Your task to perform on an android device: change notifications settings Image 0: 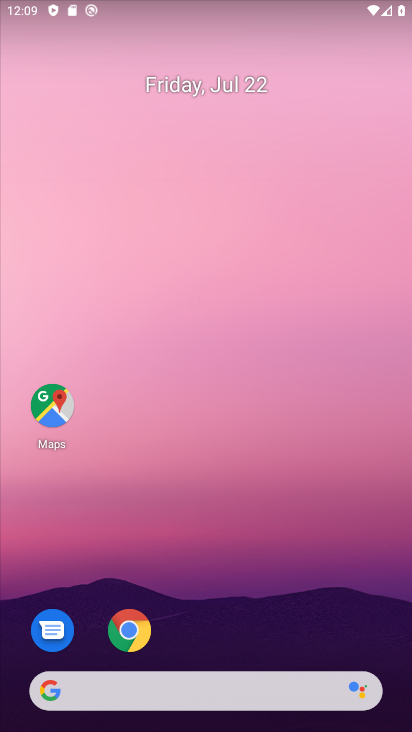
Step 0: drag from (240, 514) to (310, 74)
Your task to perform on an android device: change notifications settings Image 1: 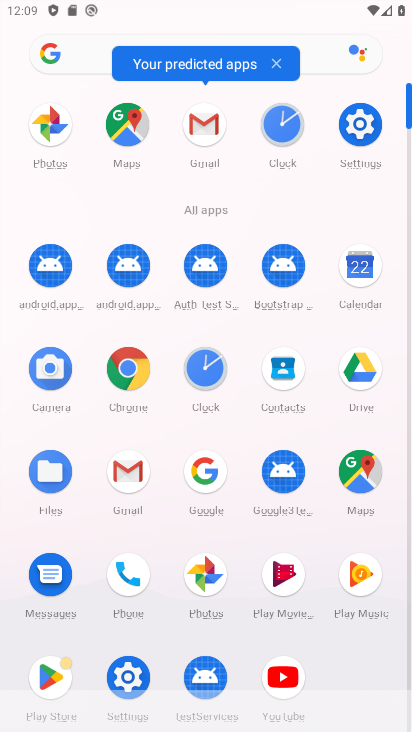
Step 1: click (353, 128)
Your task to perform on an android device: change notifications settings Image 2: 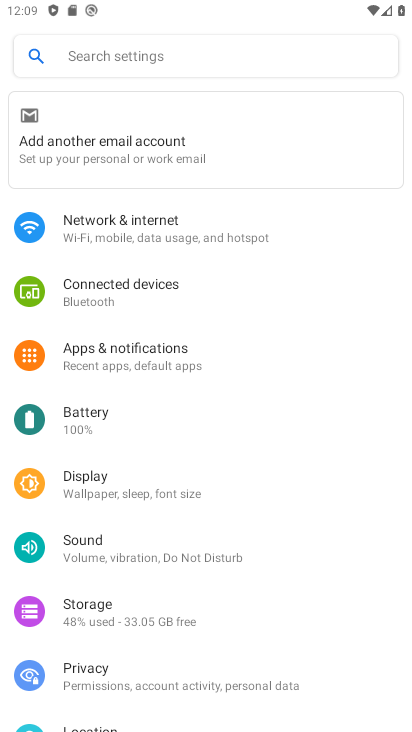
Step 2: click (106, 352)
Your task to perform on an android device: change notifications settings Image 3: 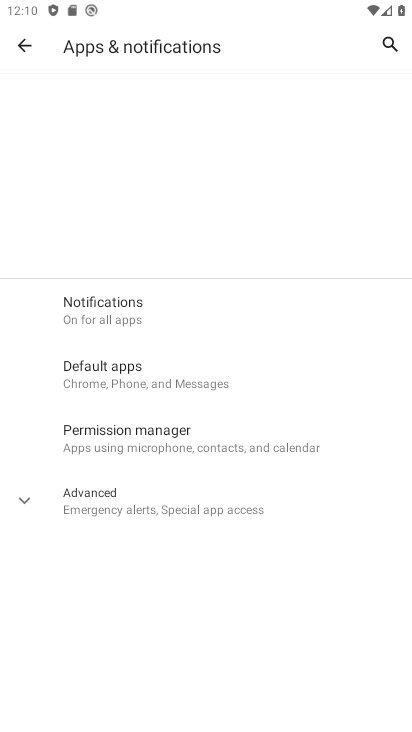
Step 3: task complete